Your task to perform on an android device: allow notifications from all sites in the chrome app Image 0: 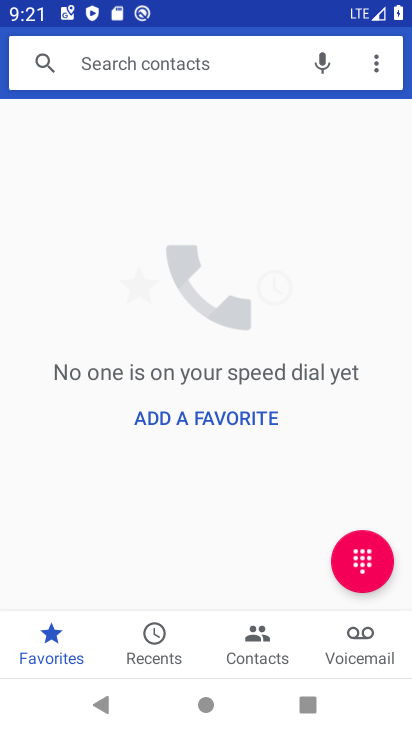
Step 0: press home button
Your task to perform on an android device: allow notifications from all sites in the chrome app Image 1: 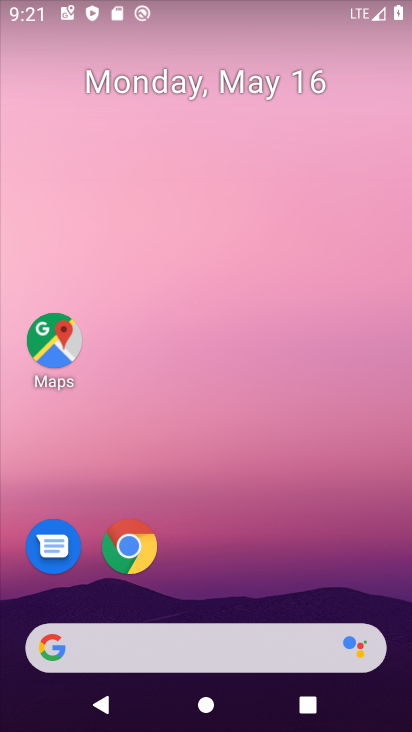
Step 1: drag from (306, 689) to (338, 119)
Your task to perform on an android device: allow notifications from all sites in the chrome app Image 2: 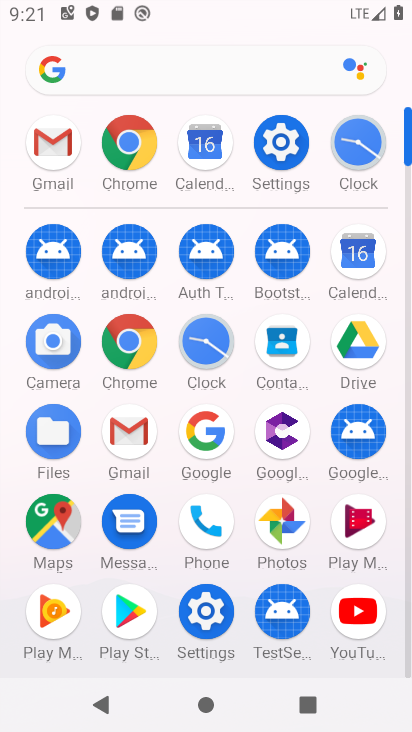
Step 2: click (129, 137)
Your task to perform on an android device: allow notifications from all sites in the chrome app Image 3: 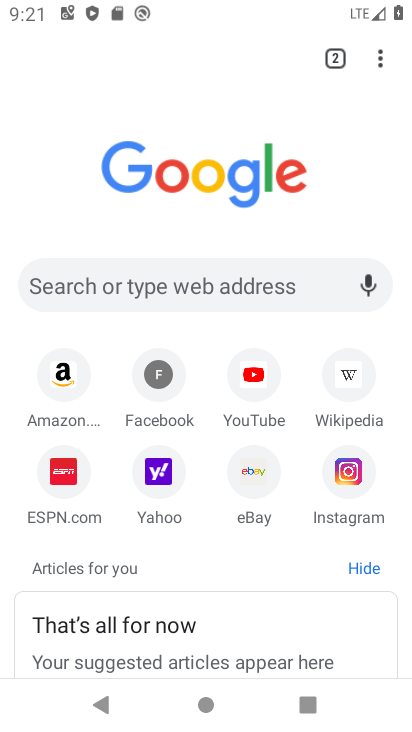
Step 3: click (381, 67)
Your task to perform on an android device: allow notifications from all sites in the chrome app Image 4: 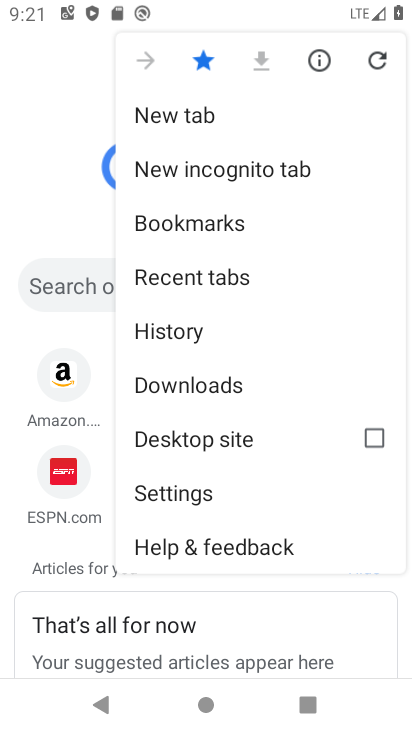
Step 4: click (197, 492)
Your task to perform on an android device: allow notifications from all sites in the chrome app Image 5: 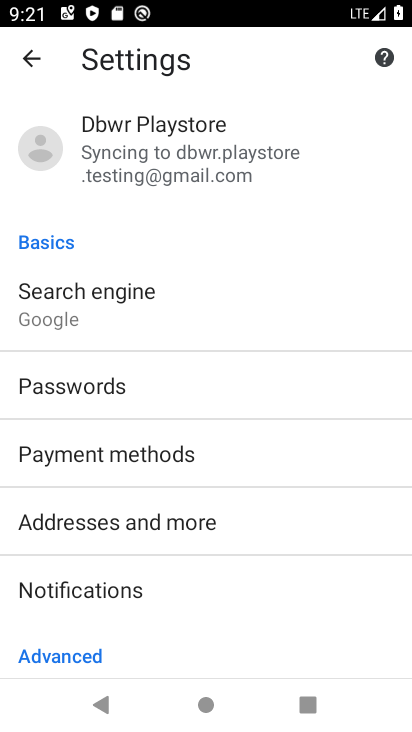
Step 5: click (133, 600)
Your task to perform on an android device: allow notifications from all sites in the chrome app Image 6: 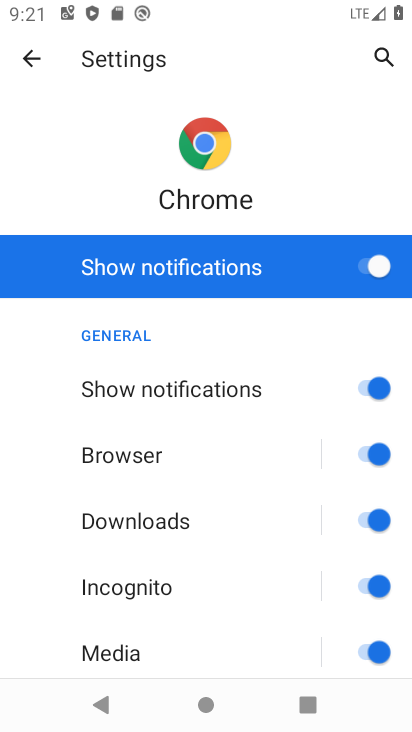
Step 6: click (354, 271)
Your task to perform on an android device: allow notifications from all sites in the chrome app Image 7: 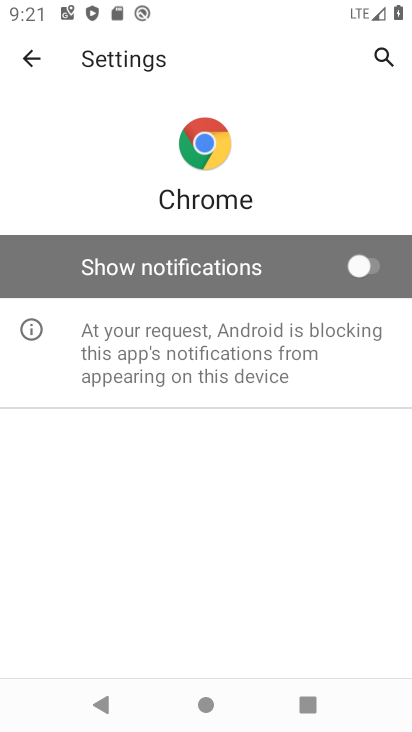
Step 7: click (354, 271)
Your task to perform on an android device: allow notifications from all sites in the chrome app Image 8: 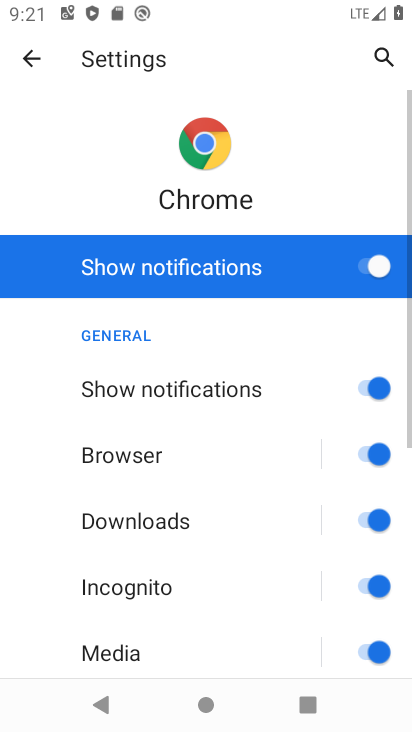
Step 8: task complete